Your task to perform on an android device: Open battery settings Image 0: 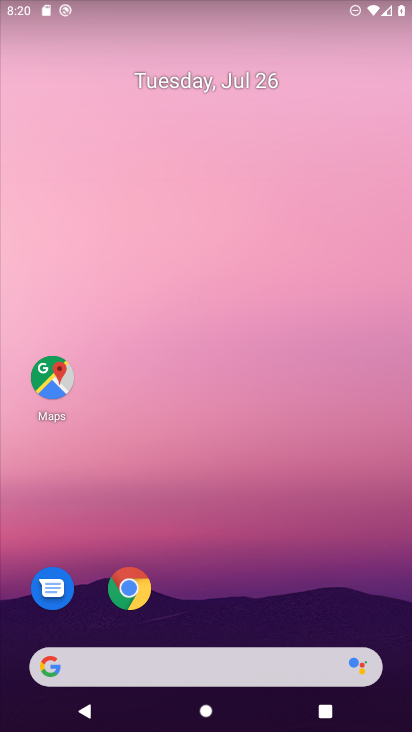
Step 0: drag from (244, 606) to (220, 8)
Your task to perform on an android device: Open battery settings Image 1: 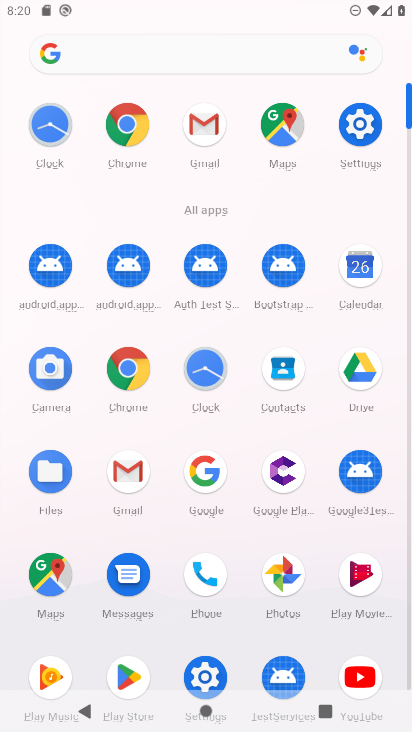
Step 1: click (352, 130)
Your task to perform on an android device: Open battery settings Image 2: 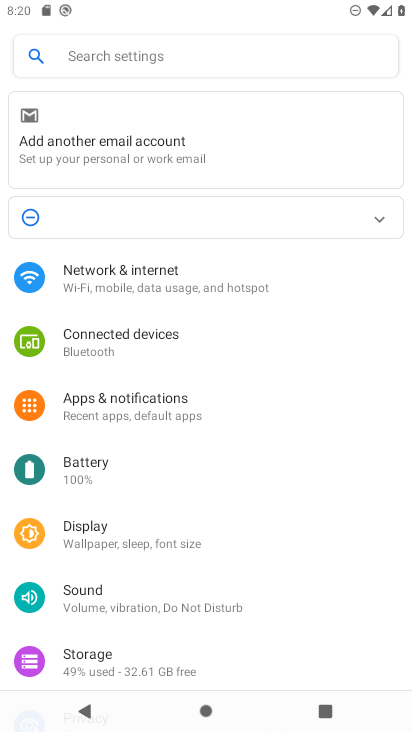
Step 2: drag from (310, 571) to (313, 343)
Your task to perform on an android device: Open battery settings Image 3: 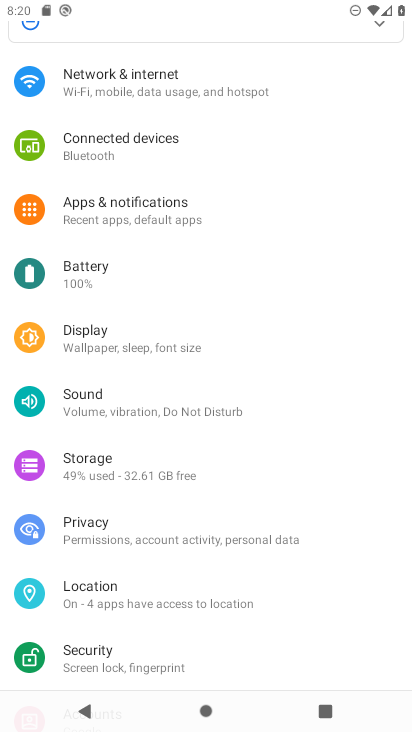
Step 3: click (61, 276)
Your task to perform on an android device: Open battery settings Image 4: 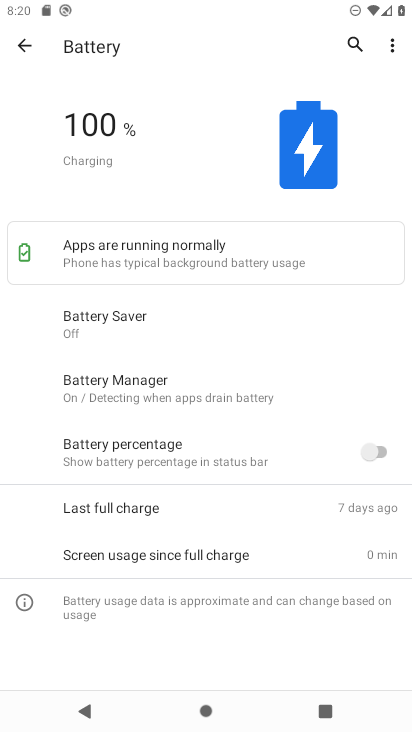
Step 4: task complete